Your task to perform on an android device: clear history in the chrome app Image 0: 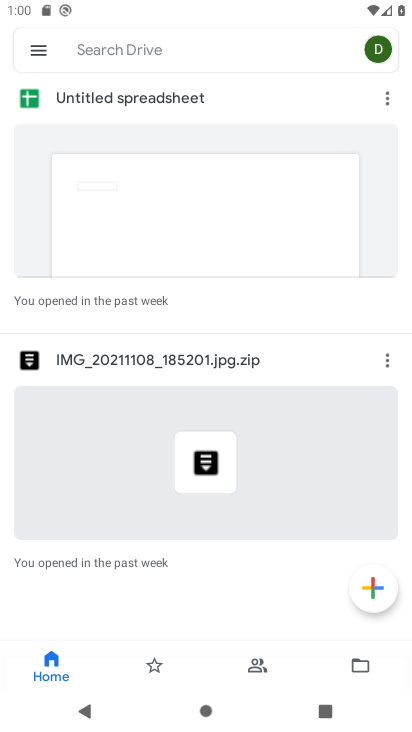
Step 0: press home button
Your task to perform on an android device: clear history in the chrome app Image 1: 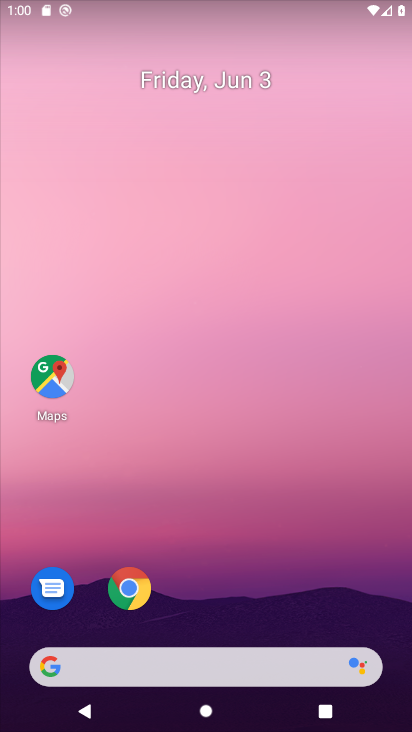
Step 1: click (129, 598)
Your task to perform on an android device: clear history in the chrome app Image 2: 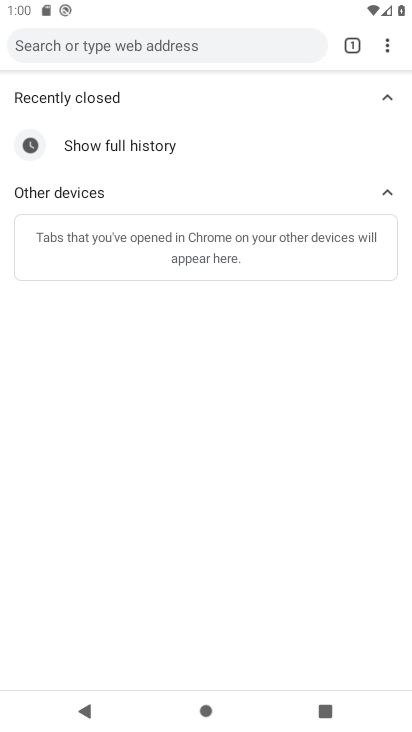
Step 2: click (384, 48)
Your task to perform on an android device: clear history in the chrome app Image 3: 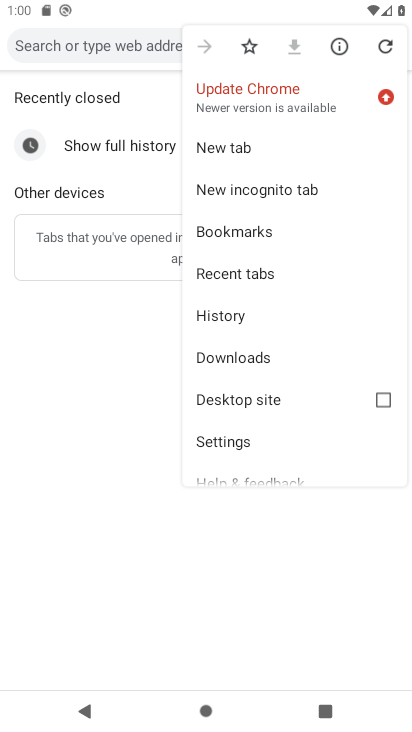
Step 3: click (292, 316)
Your task to perform on an android device: clear history in the chrome app Image 4: 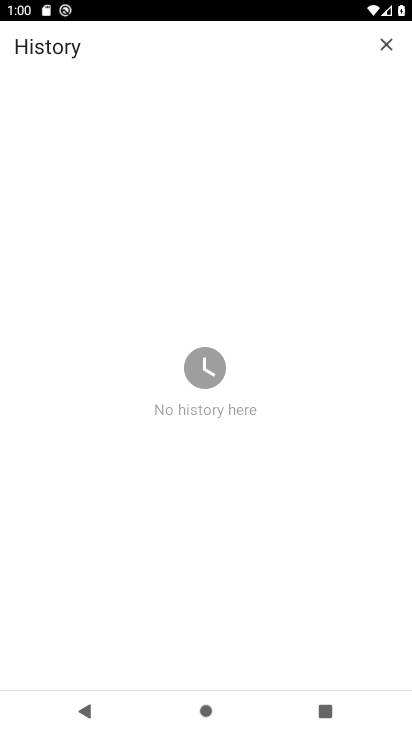
Step 4: task complete